Your task to perform on an android device: Clear all items from cart on walmart.com. Search for "logitech g pro" on walmart.com, select the first entry, and add it to the cart. Image 0: 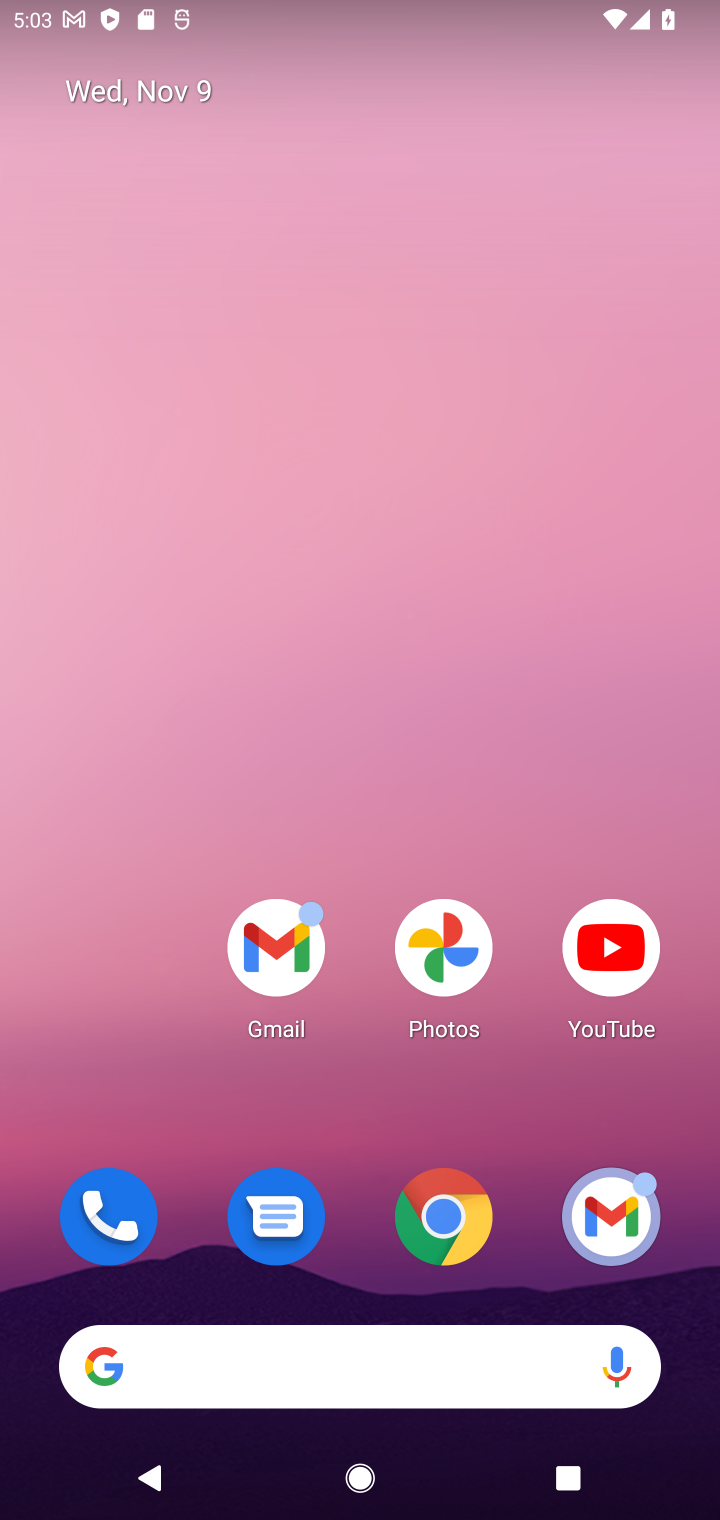
Step 0: drag from (352, 1086) to (357, 159)
Your task to perform on an android device: Clear all items from cart on walmart.com. Search for "logitech g pro" on walmart.com, select the first entry, and add it to the cart. Image 1: 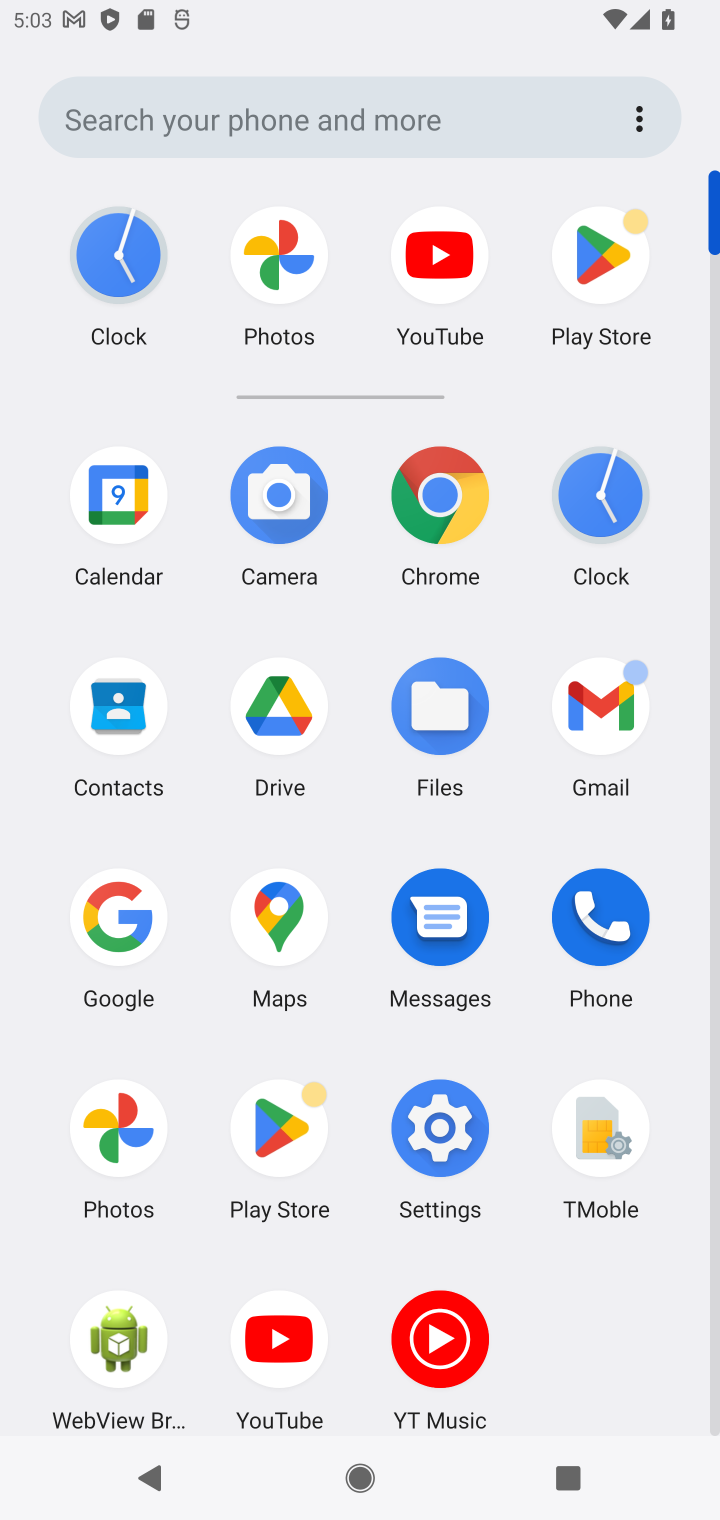
Step 1: click (439, 502)
Your task to perform on an android device: Clear all items from cart on walmart.com. Search for "logitech g pro" on walmart.com, select the first entry, and add it to the cart. Image 2: 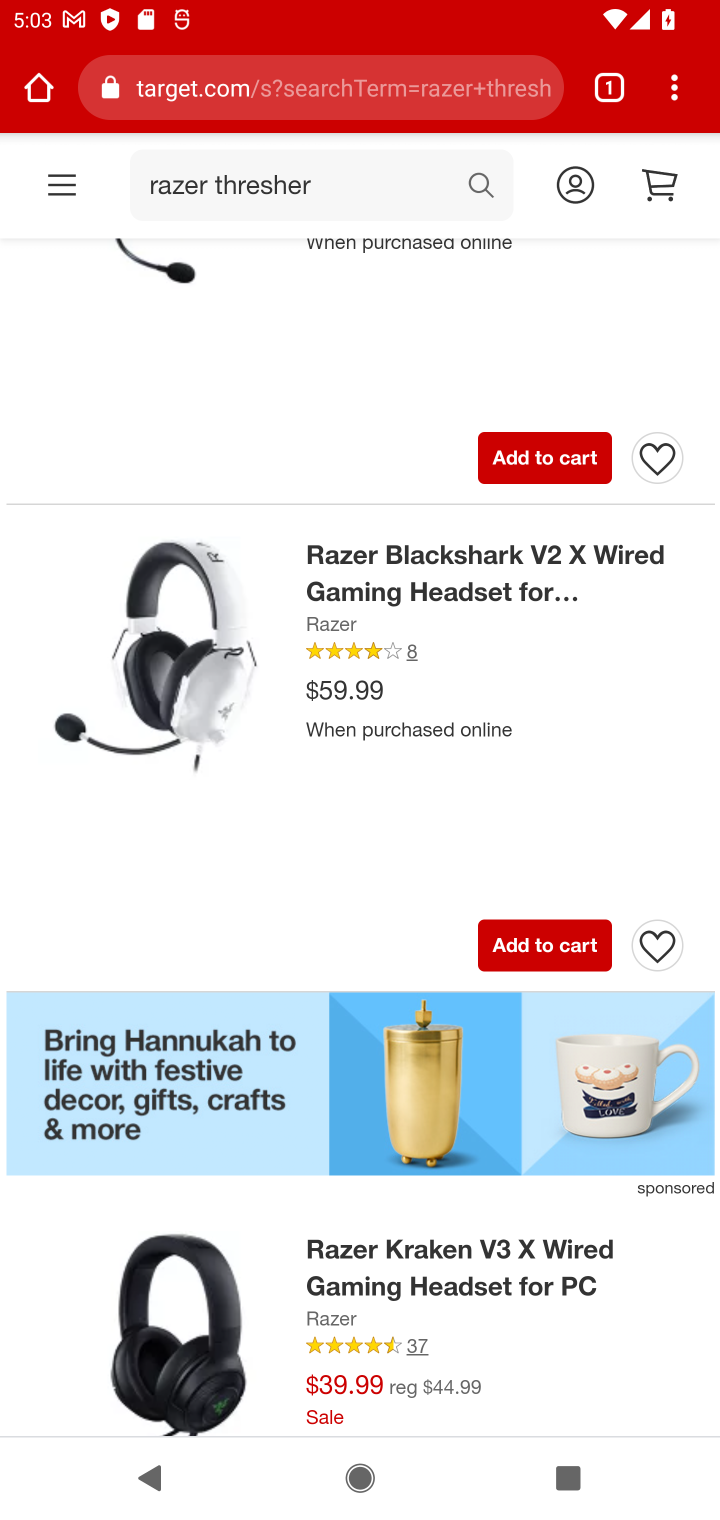
Step 2: click (353, 98)
Your task to perform on an android device: Clear all items from cart on walmart.com. Search for "logitech g pro" on walmart.com, select the first entry, and add it to the cart. Image 3: 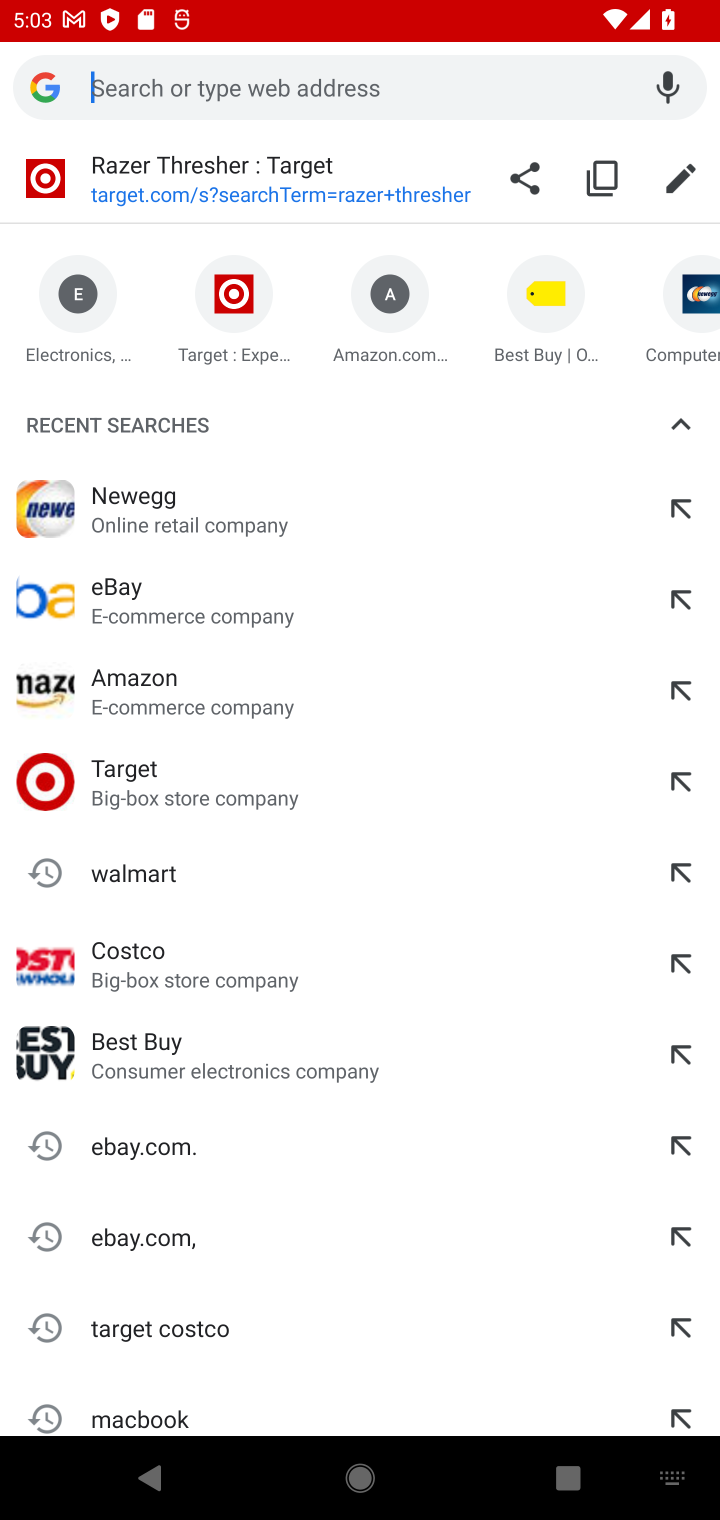
Step 3: type "walmart.com"
Your task to perform on an android device: Clear all items from cart on walmart.com. Search for "logitech g pro" on walmart.com, select the first entry, and add it to the cart. Image 4: 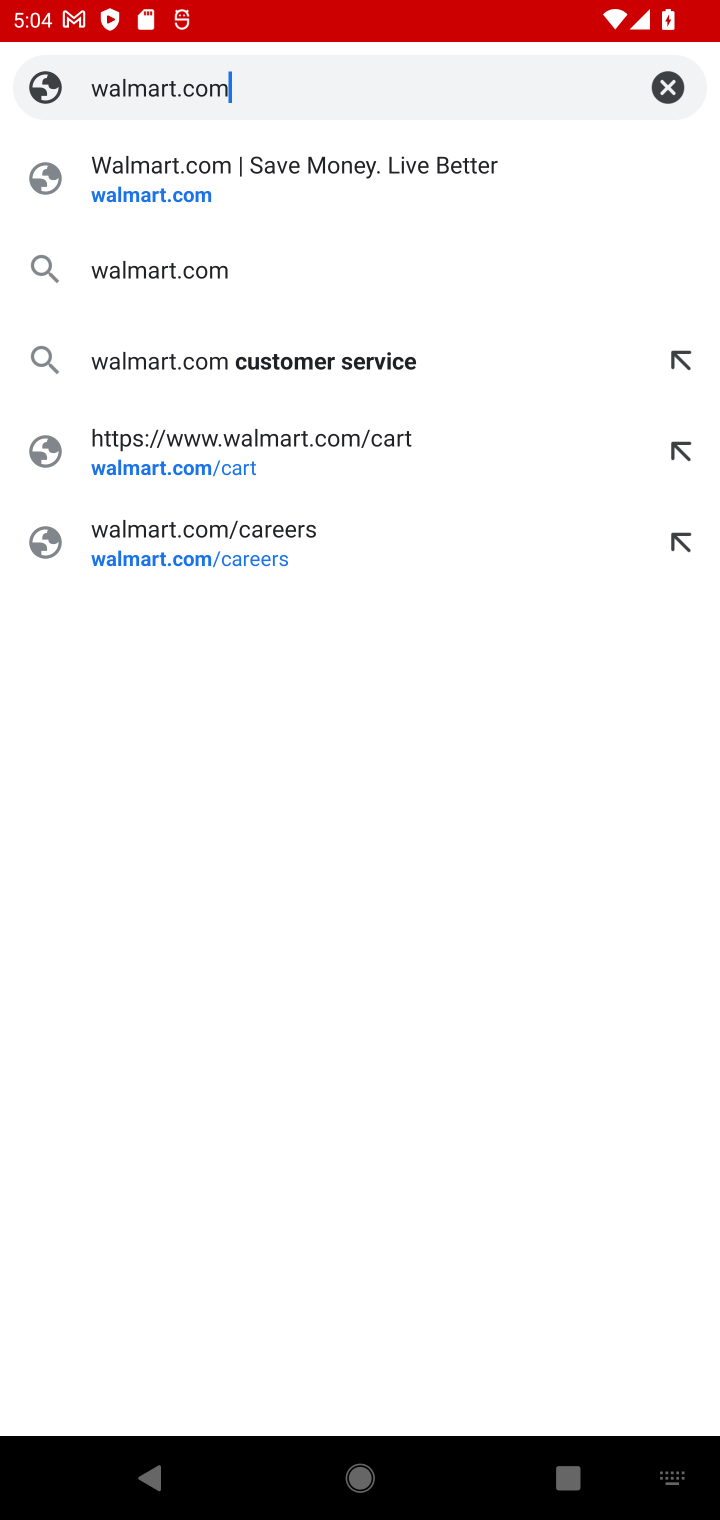
Step 4: press enter
Your task to perform on an android device: Clear all items from cart on walmart.com. Search for "logitech g pro" on walmart.com, select the first entry, and add it to the cart. Image 5: 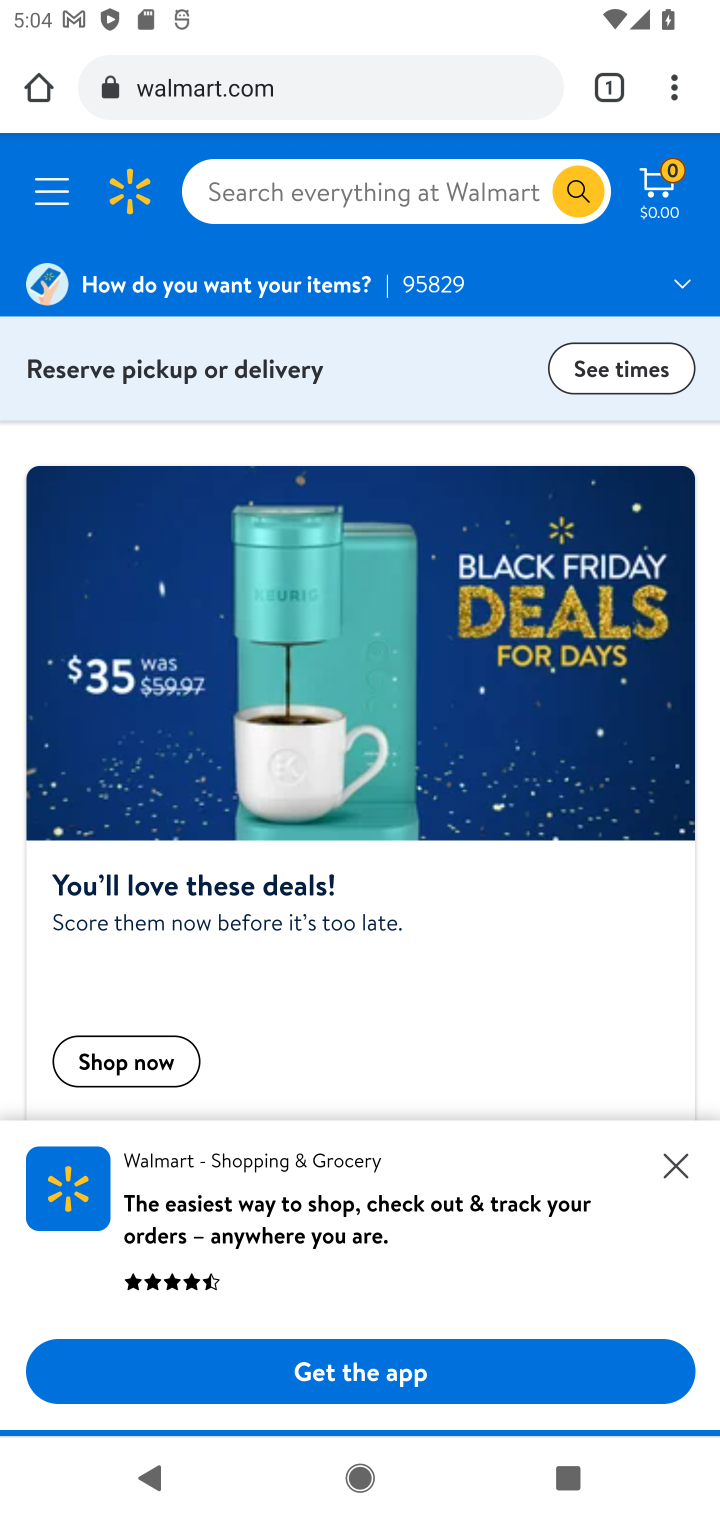
Step 5: click (666, 190)
Your task to perform on an android device: Clear all items from cart on walmart.com. Search for "logitech g pro" on walmart.com, select the first entry, and add it to the cart. Image 6: 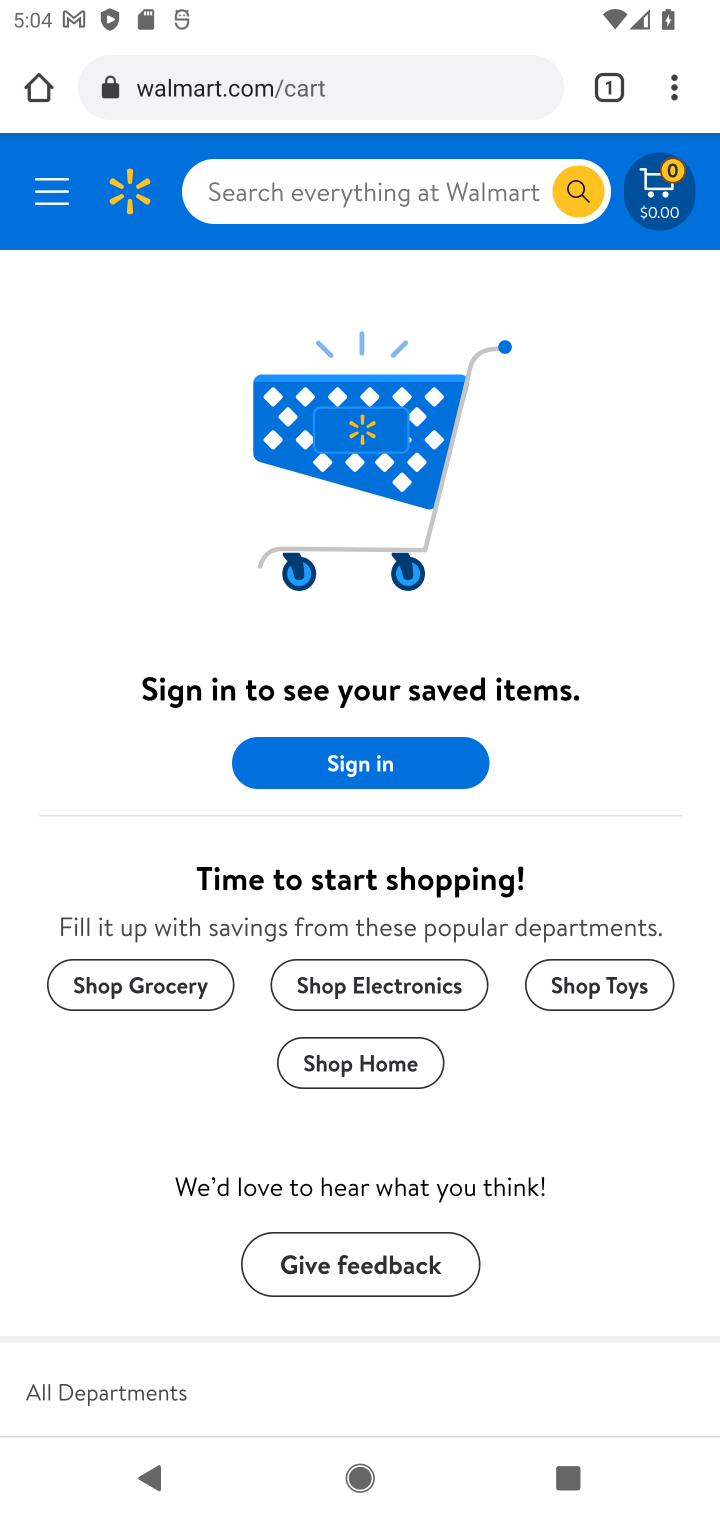
Step 6: click (433, 197)
Your task to perform on an android device: Clear all items from cart on walmart.com. Search for "logitech g pro" on walmart.com, select the first entry, and add it to the cart. Image 7: 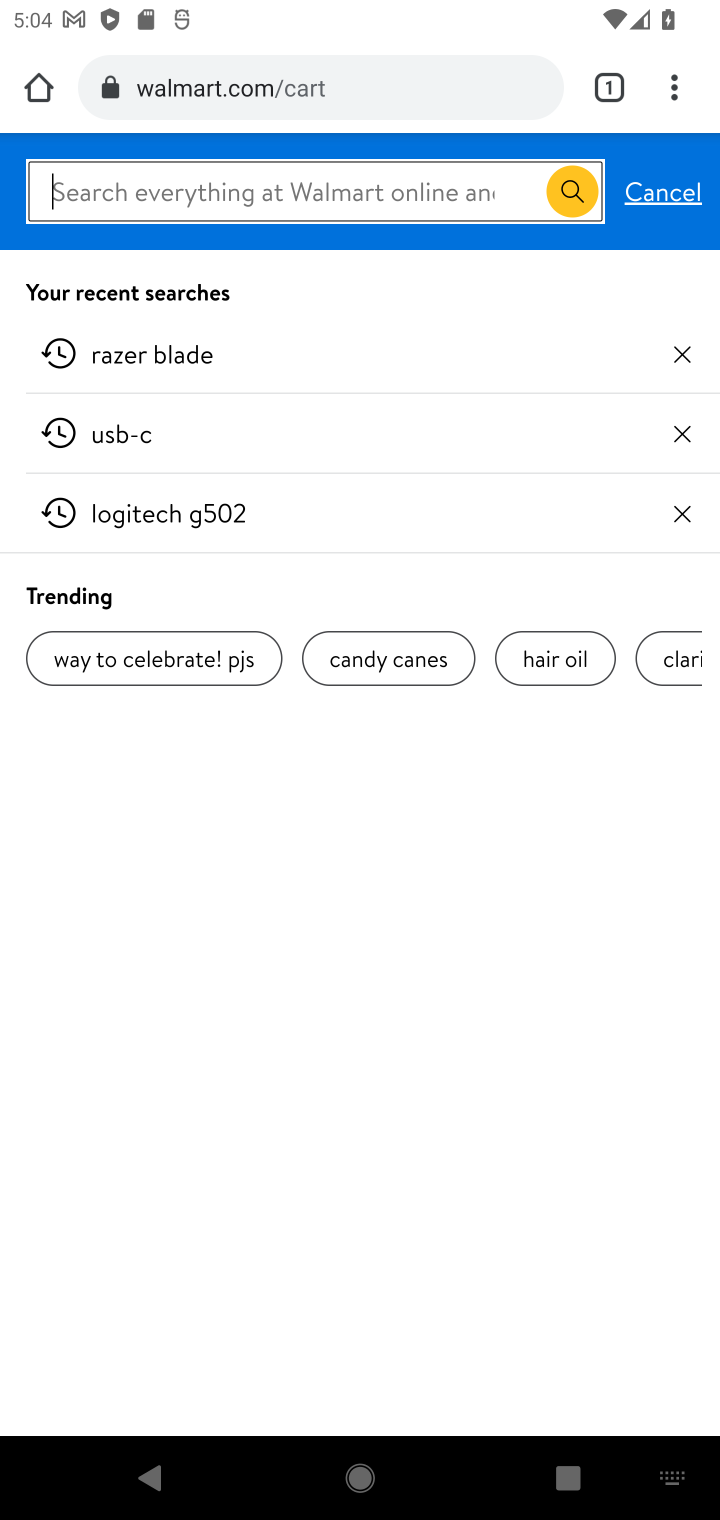
Step 7: type "logitech g pro"
Your task to perform on an android device: Clear all items from cart on walmart.com. Search for "logitech g pro" on walmart.com, select the first entry, and add it to the cart. Image 8: 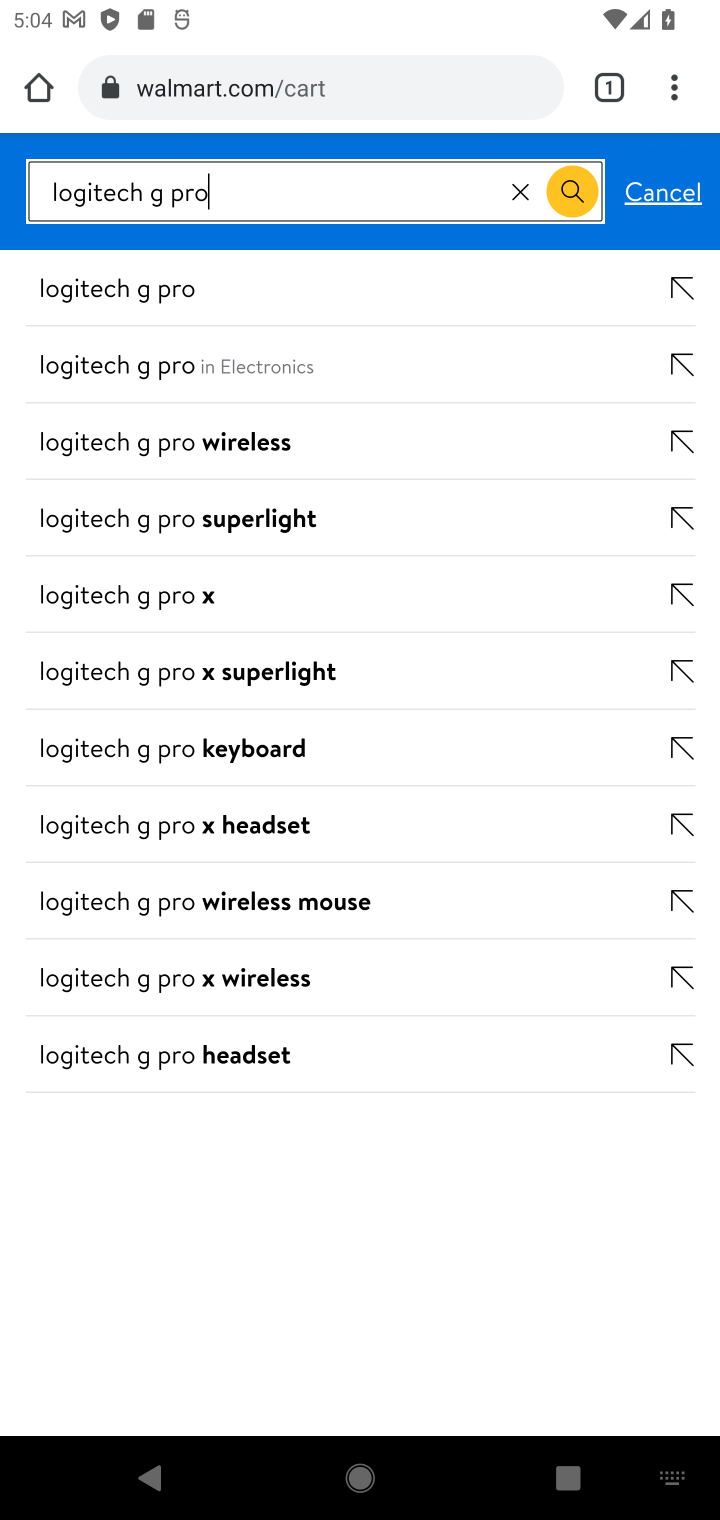
Step 8: press enter
Your task to perform on an android device: Clear all items from cart on walmart.com. Search for "logitech g pro" on walmart.com, select the first entry, and add it to the cart. Image 9: 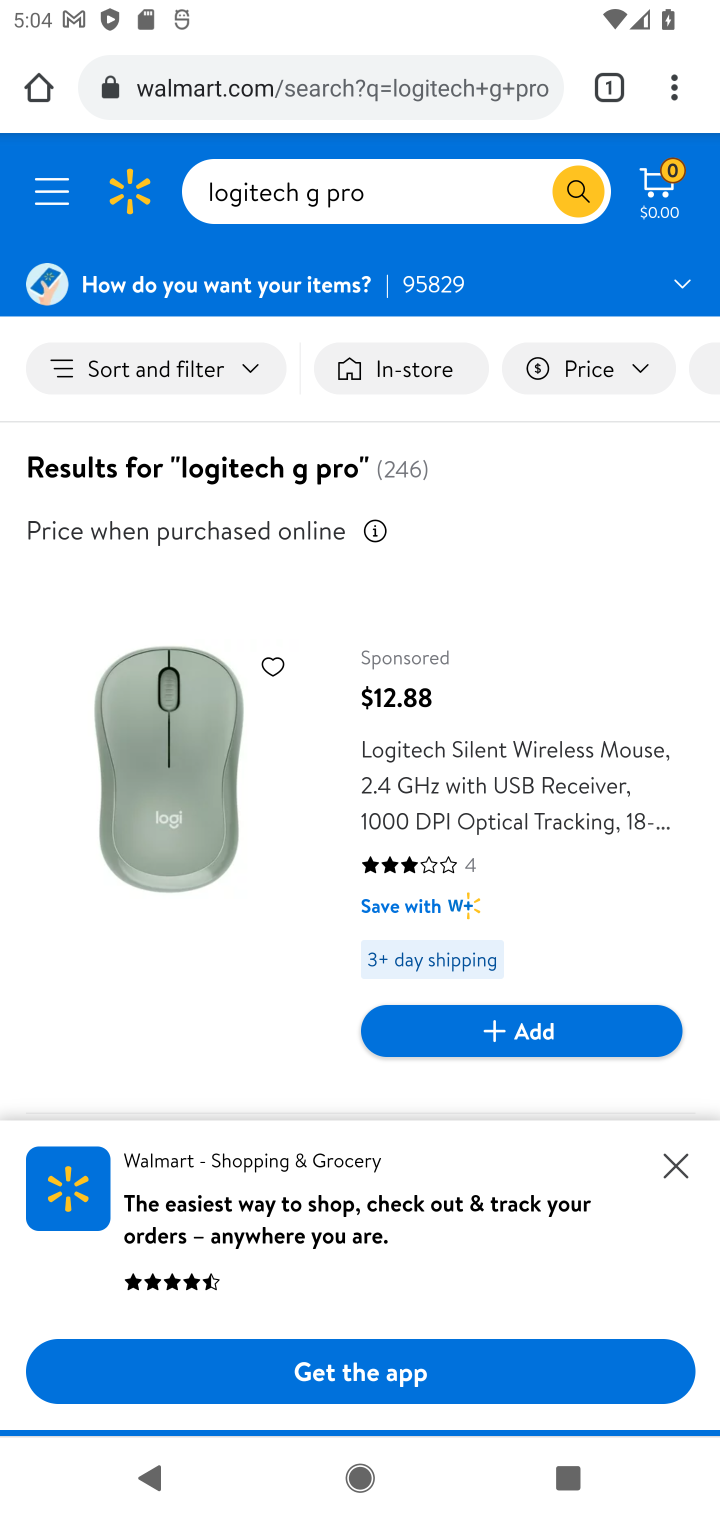
Step 9: drag from (126, 993) to (243, 329)
Your task to perform on an android device: Clear all items from cart on walmart.com. Search for "logitech g pro" on walmart.com, select the first entry, and add it to the cart. Image 10: 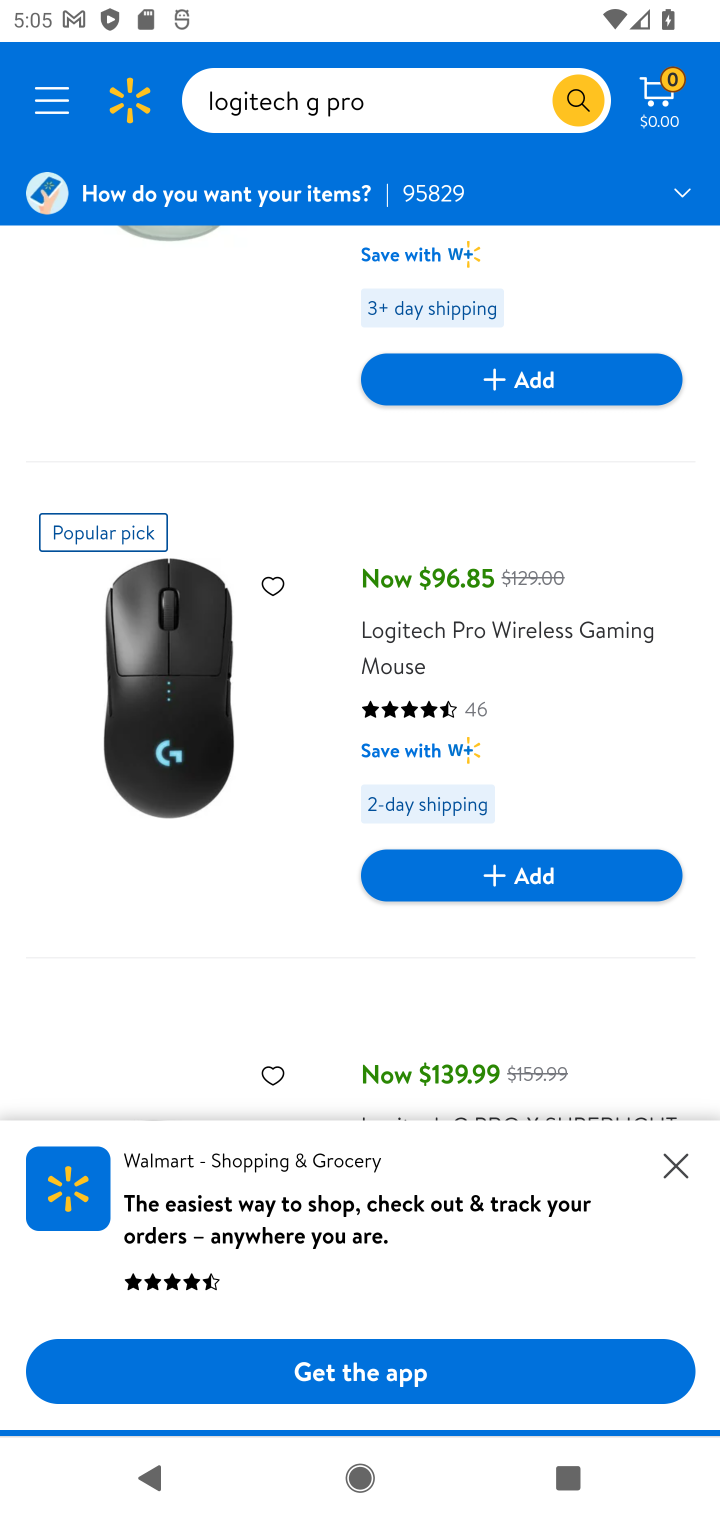
Step 10: drag from (285, 1027) to (284, 436)
Your task to perform on an android device: Clear all items from cart on walmart.com. Search for "logitech g pro" on walmart.com, select the first entry, and add it to the cart. Image 11: 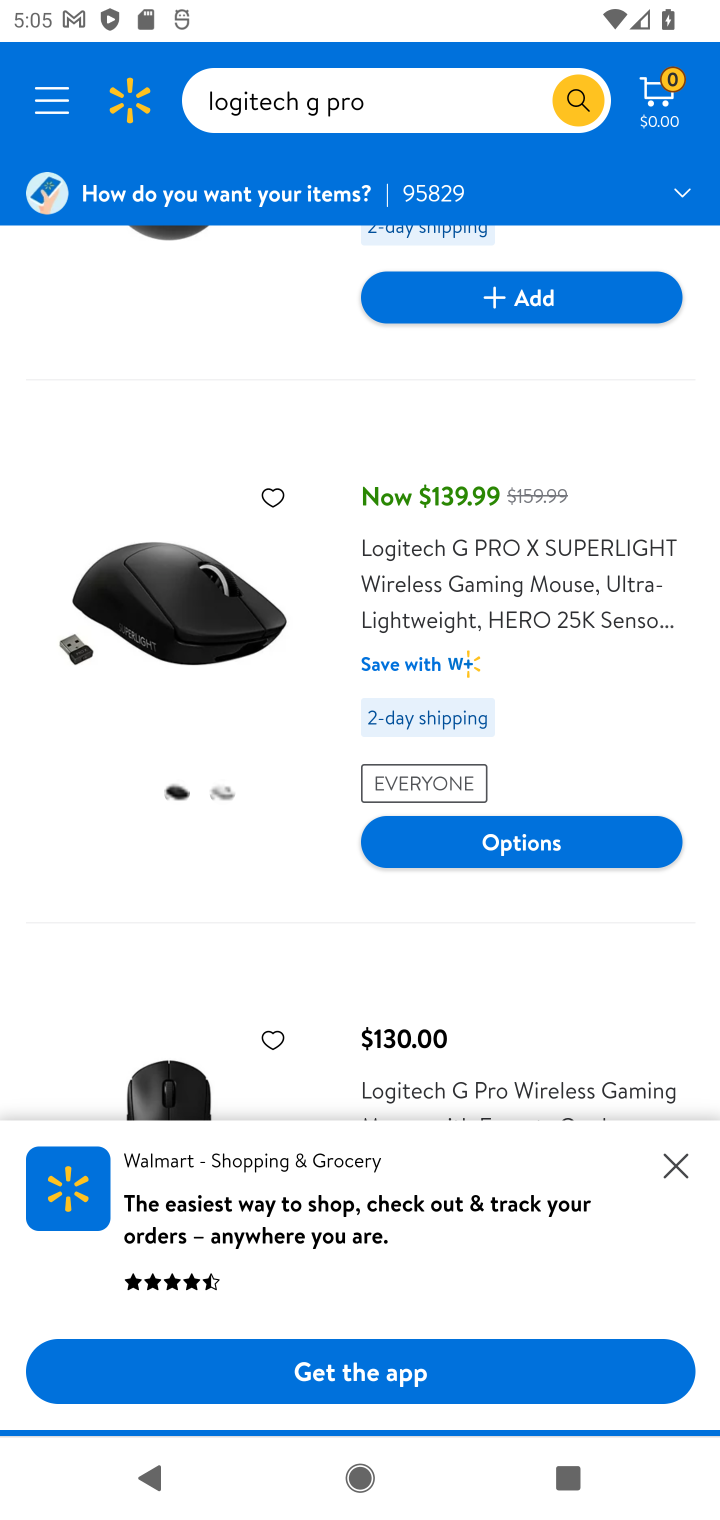
Step 11: drag from (498, 583) to (410, 1290)
Your task to perform on an android device: Clear all items from cart on walmart.com. Search for "logitech g pro" on walmart.com, select the first entry, and add it to the cart. Image 12: 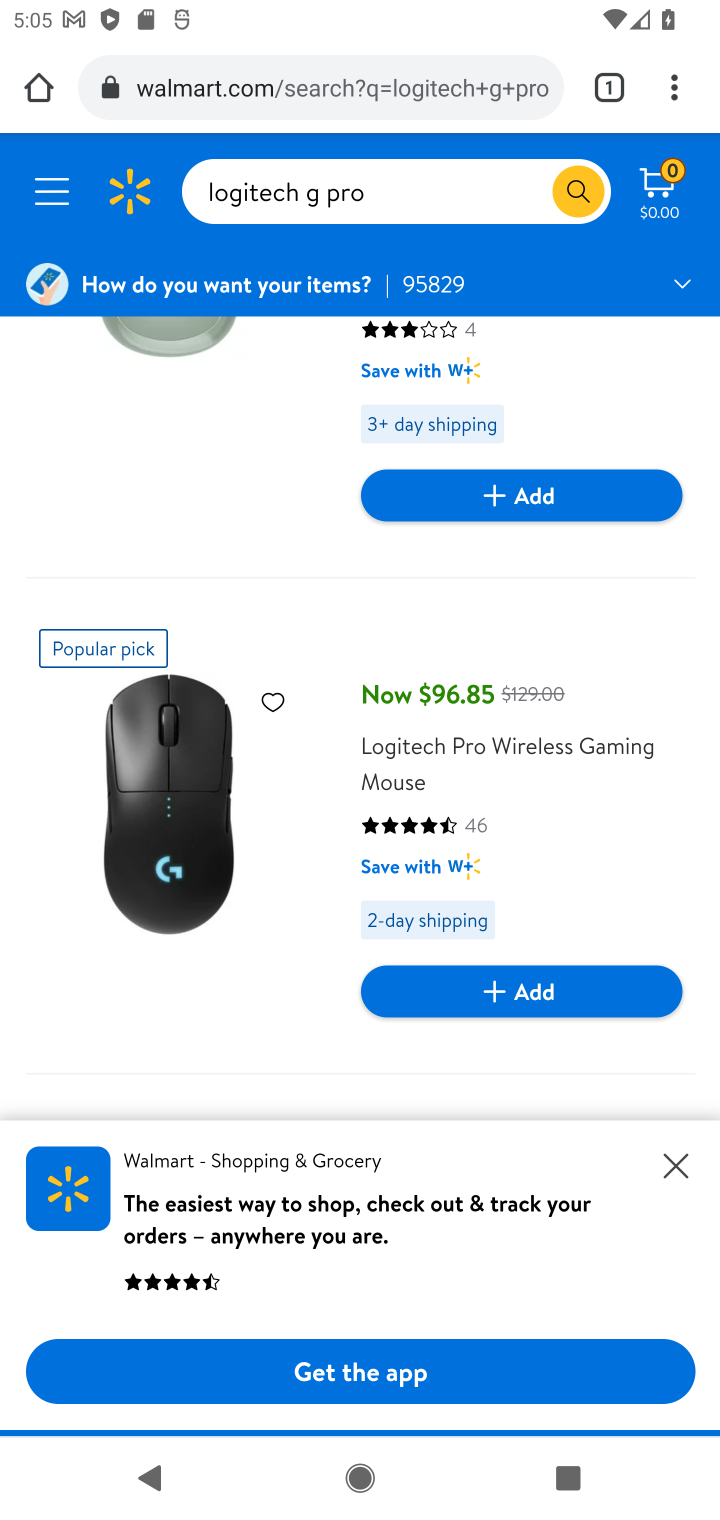
Step 12: drag from (268, 405) to (331, 483)
Your task to perform on an android device: Clear all items from cart on walmart.com. Search for "logitech g pro" on walmart.com, select the first entry, and add it to the cart. Image 13: 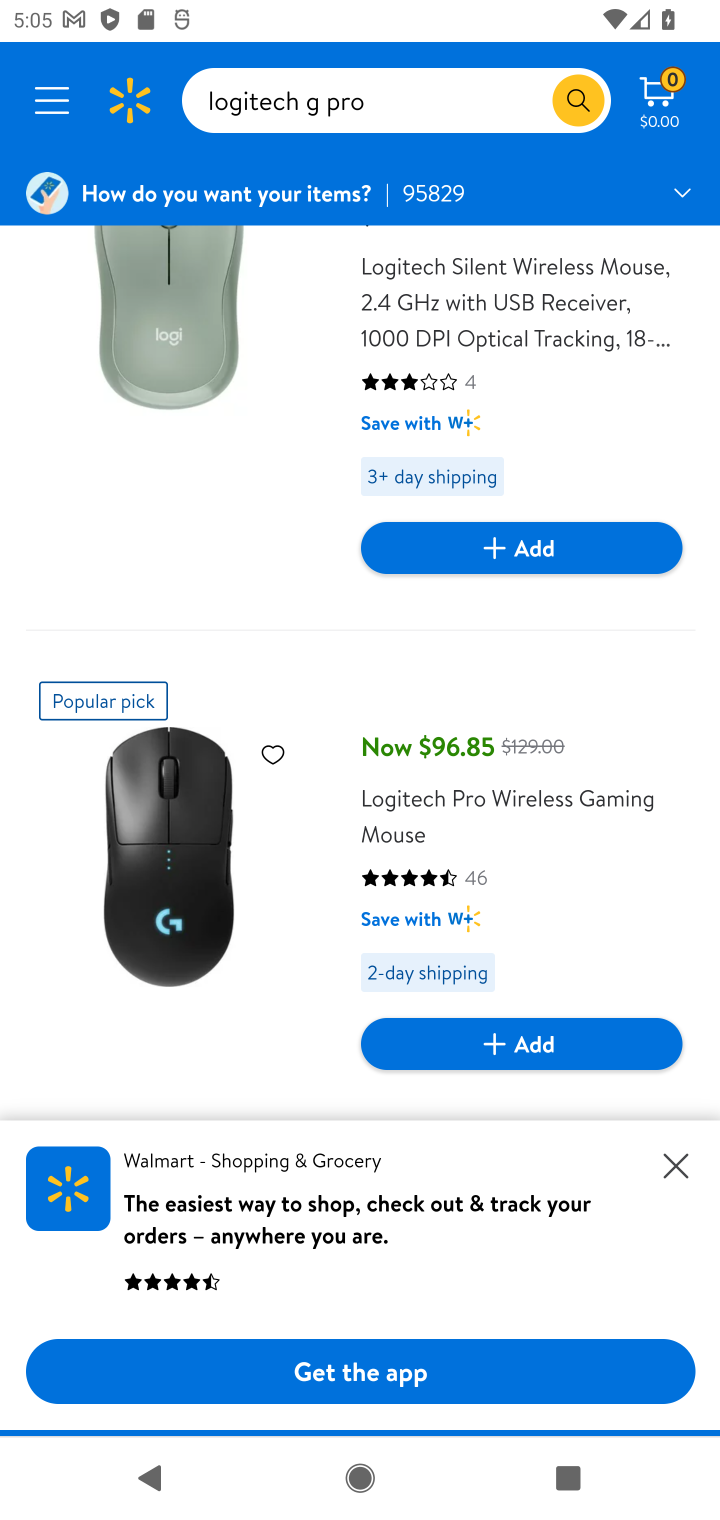
Step 13: click (394, 829)
Your task to perform on an android device: Clear all items from cart on walmart.com. Search for "logitech g pro" on walmart.com, select the first entry, and add it to the cart. Image 14: 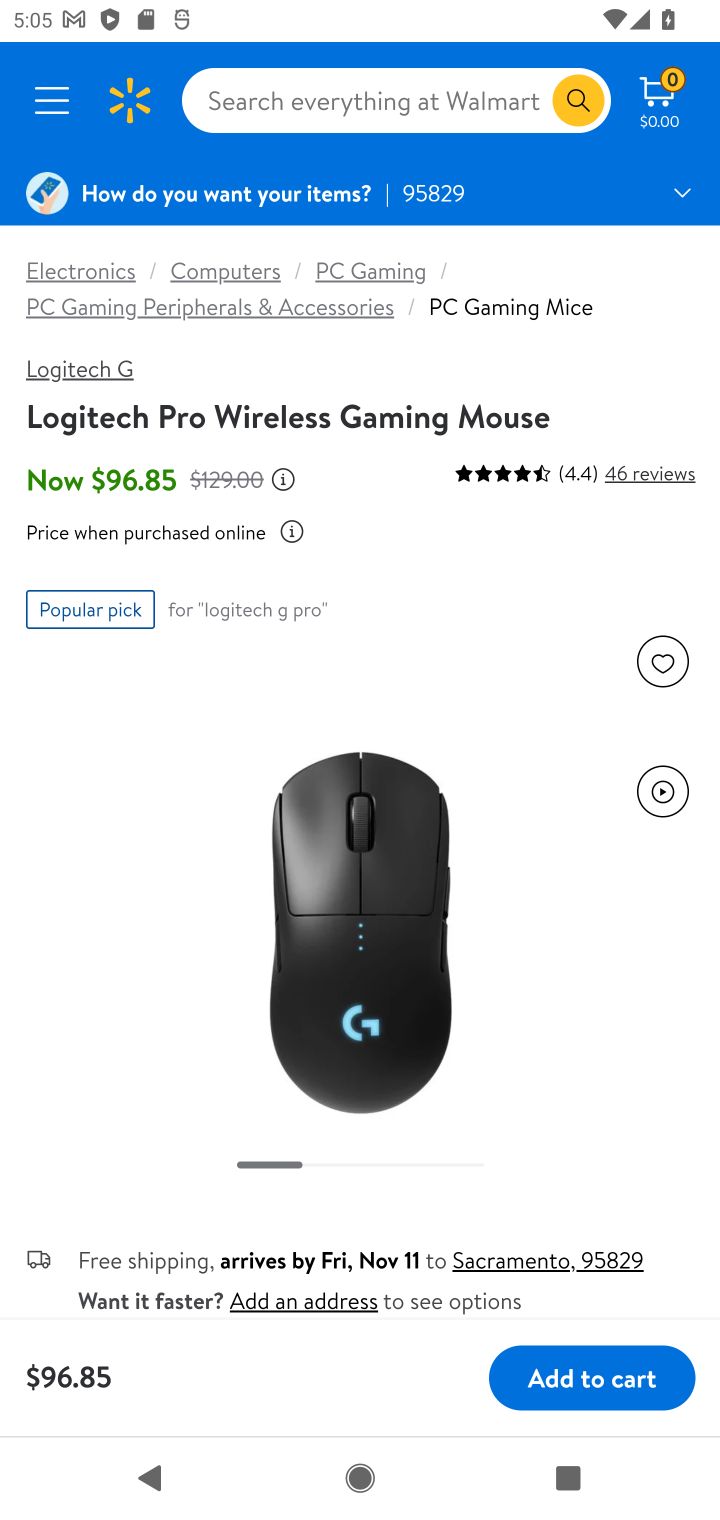
Step 14: task complete